Your task to perform on an android device: Open Google Chrome Image 0: 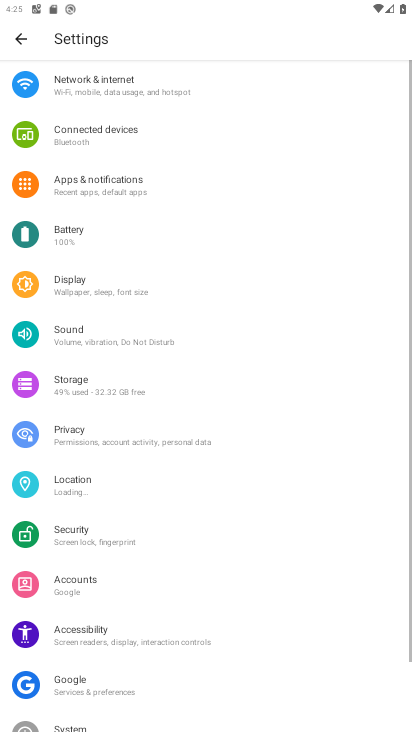
Step 0: press home button
Your task to perform on an android device: Open Google Chrome Image 1: 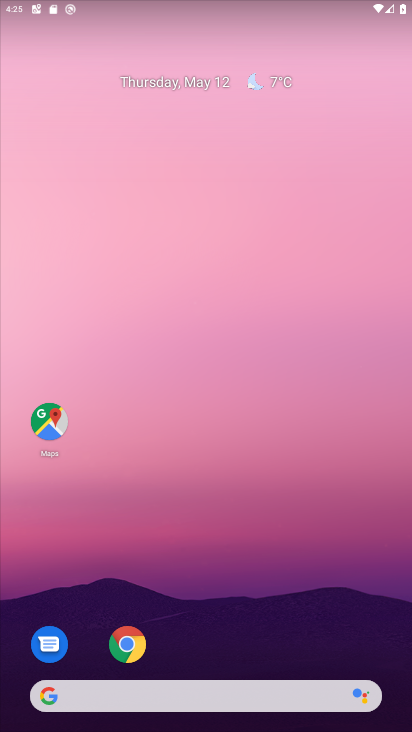
Step 1: click (124, 637)
Your task to perform on an android device: Open Google Chrome Image 2: 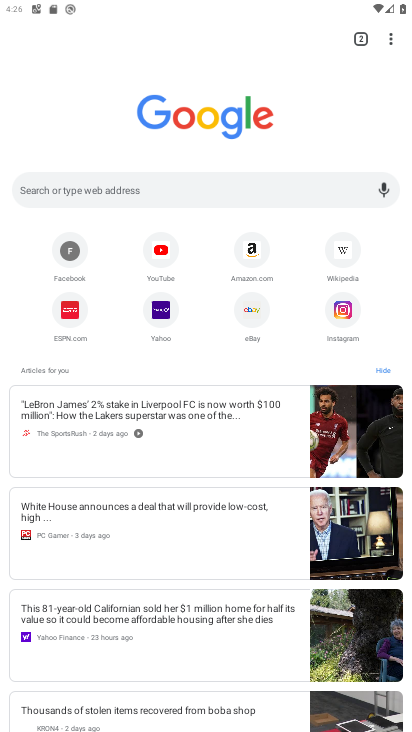
Step 2: task complete